Your task to perform on an android device: turn notification dots off Image 0: 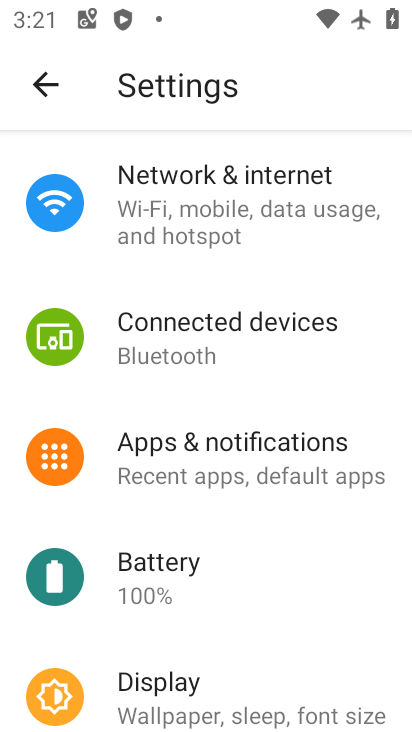
Step 0: click (303, 458)
Your task to perform on an android device: turn notification dots off Image 1: 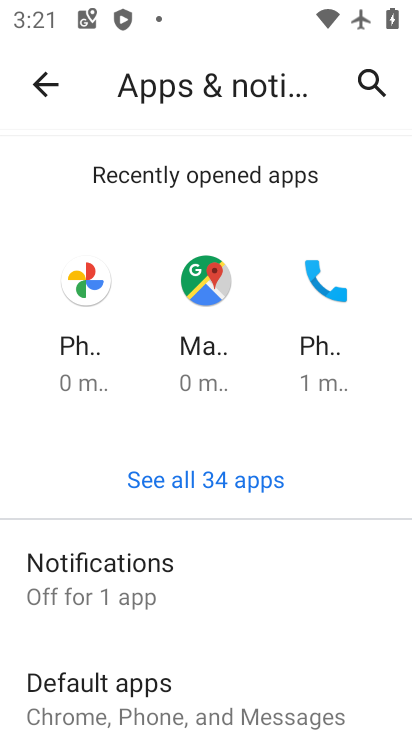
Step 1: click (217, 556)
Your task to perform on an android device: turn notification dots off Image 2: 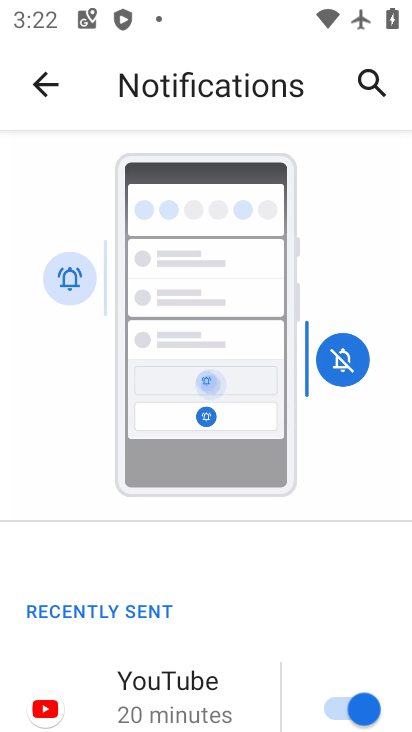
Step 2: drag from (266, 606) to (307, 208)
Your task to perform on an android device: turn notification dots off Image 3: 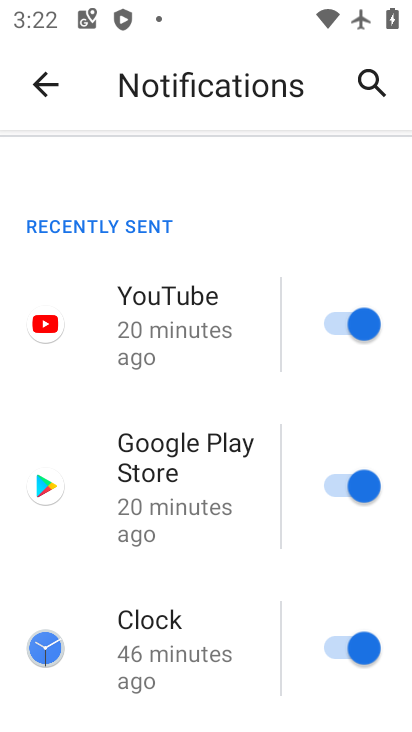
Step 3: drag from (231, 241) to (234, 164)
Your task to perform on an android device: turn notification dots off Image 4: 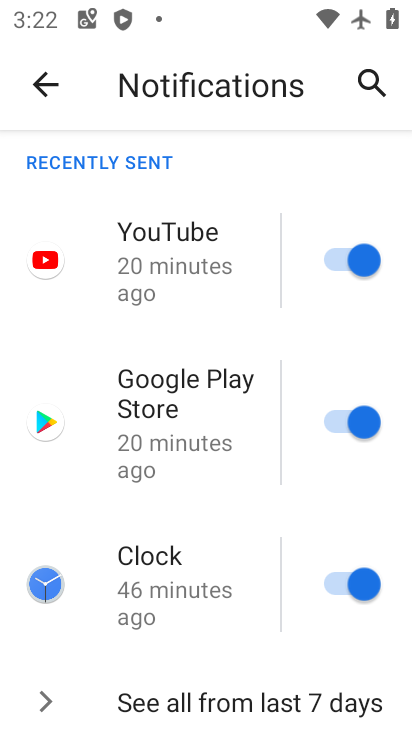
Step 4: drag from (197, 629) to (224, 258)
Your task to perform on an android device: turn notification dots off Image 5: 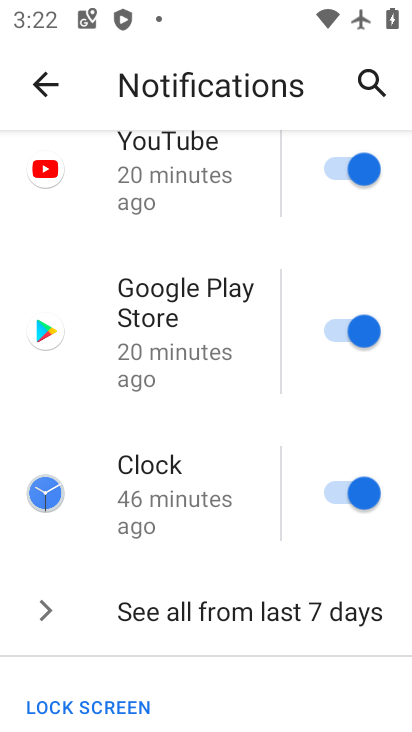
Step 5: drag from (191, 228) to (197, 162)
Your task to perform on an android device: turn notification dots off Image 6: 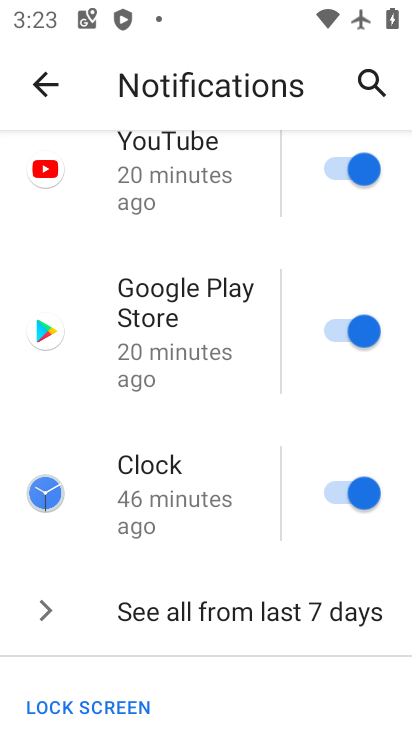
Step 6: drag from (223, 653) to (134, 234)
Your task to perform on an android device: turn notification dots off Image 7: 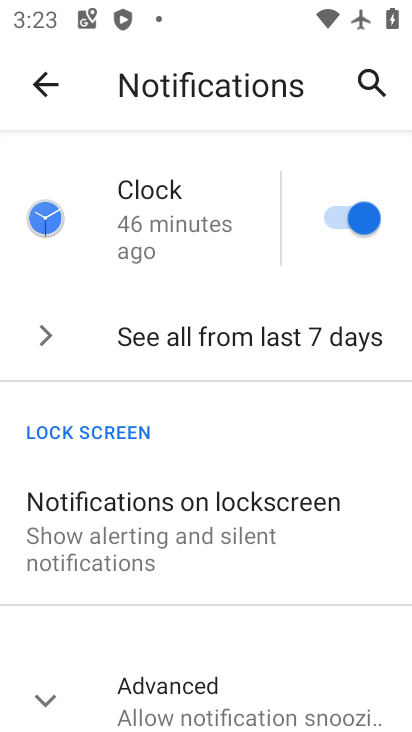
Step 7: drag from (254, 663) to (178, 336)
Your task to perform on an android device: turn notification dots off Image 8: 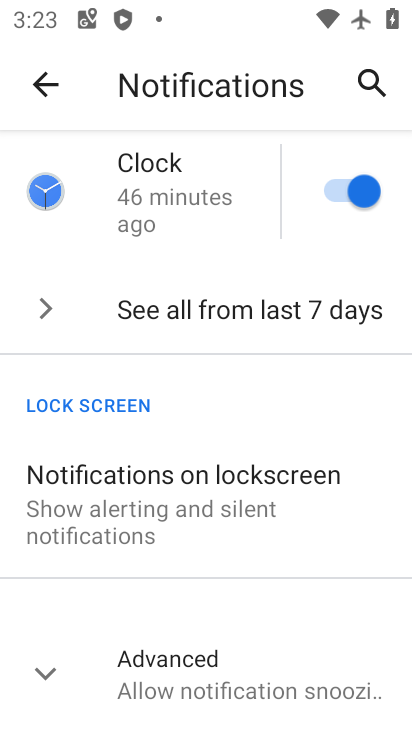
Step 8: click (200, 647)
Your task to perform on an android device: turn notification dots off Image 9: 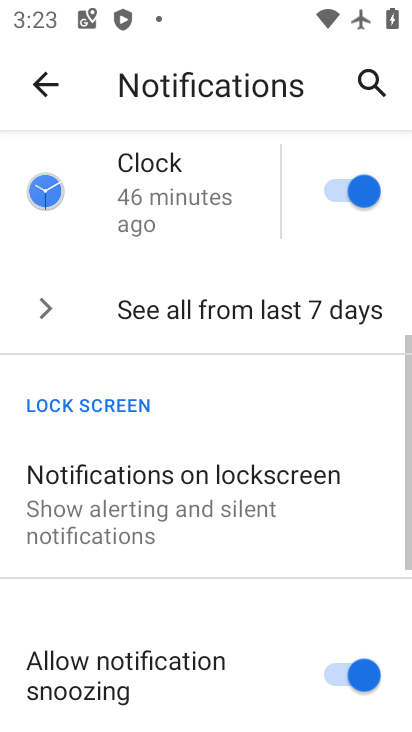
Step 9: task complete